Your task to perform on an android device: Open Amazon Image 0: 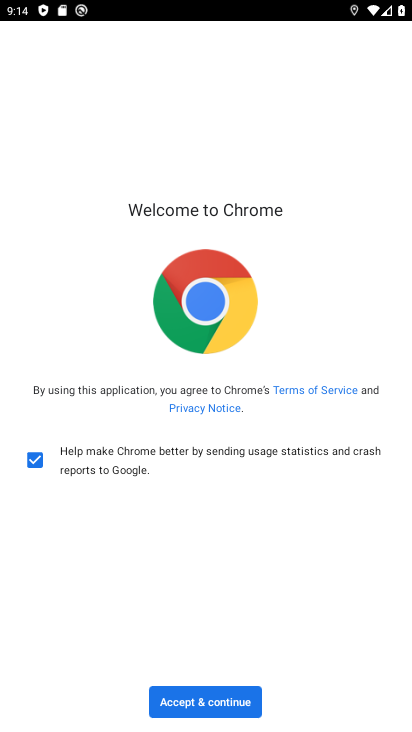
Step 0: press home button
Your task to perform on an android device: Open Amazon Image 1: 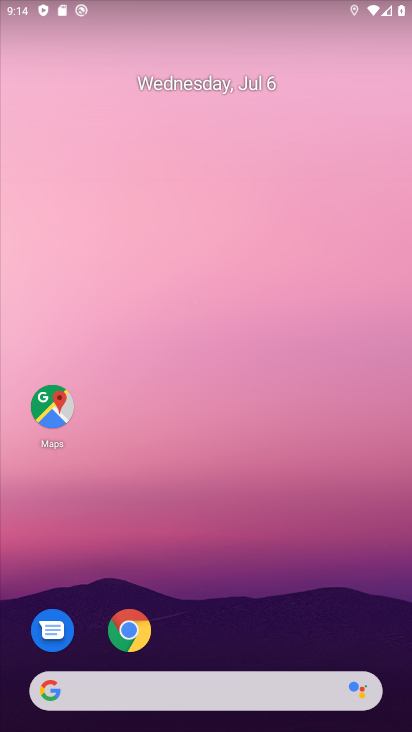
Step 1: drag from (364, 637) to (321, 191)
Your task to perform on an android device: Open Amazon Image 2: 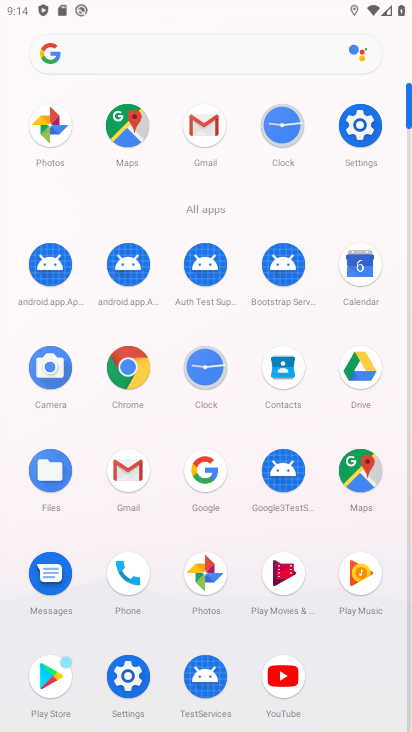
Step 2: click (129, 370)
Your task to perform on an android device: Open Amazon Image 3: 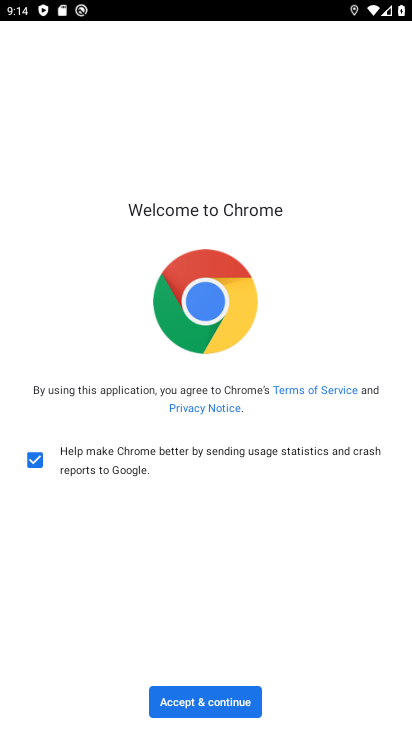
Step 3: click (190, 701)
Your task to perform on an android device: Open Amazon Image 4: 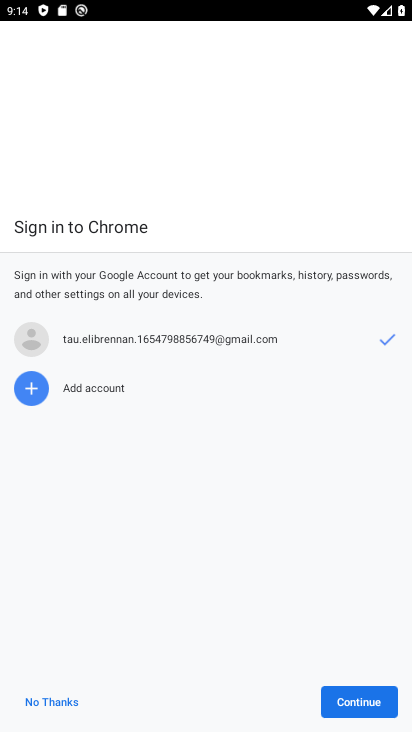
Step 4: click (352, 704)
Your task to perform on an android device: Open Amazon Image 5: 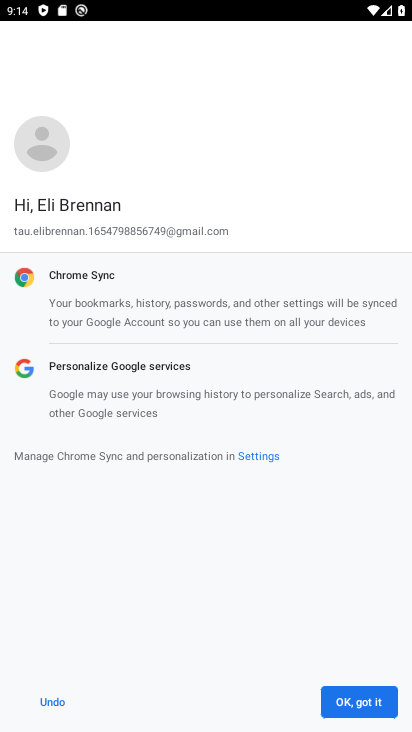
Step 5: click (352, 704)
Your task to perform on an android device: Open Amazon Image 6: 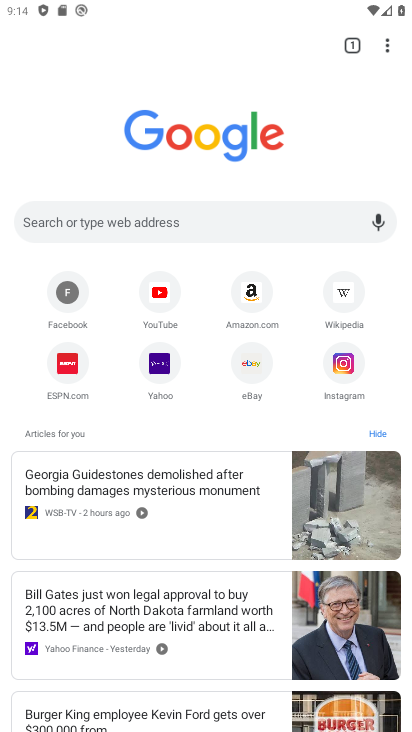
Step 6: click (248, 293)
Your task to perform on an android device: Open Amazon Image 7: 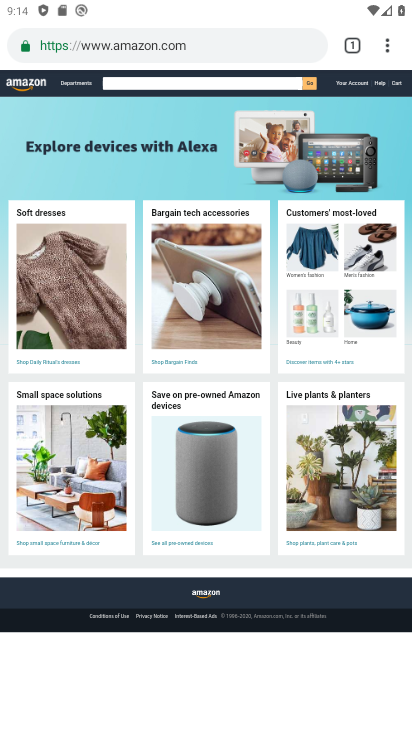
Step 7: task complete